Your task to perform on an android device: Open the Play Movies app and select the watchlist tab. Image 0: 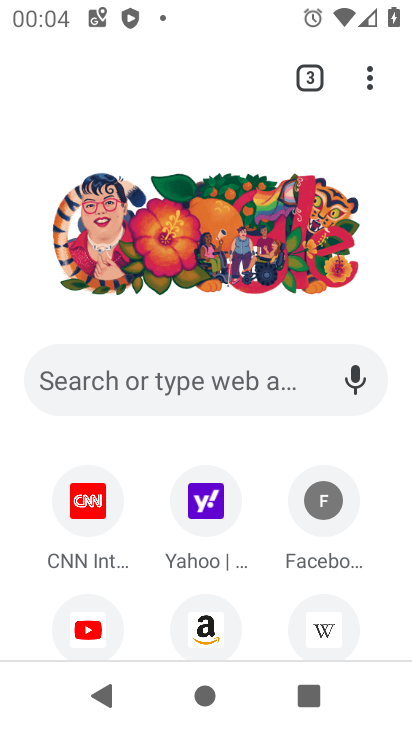
Step 0: press home button
Your task to perform on an android device: Open the Play Movies app and select the watchlist tab. Image 1: 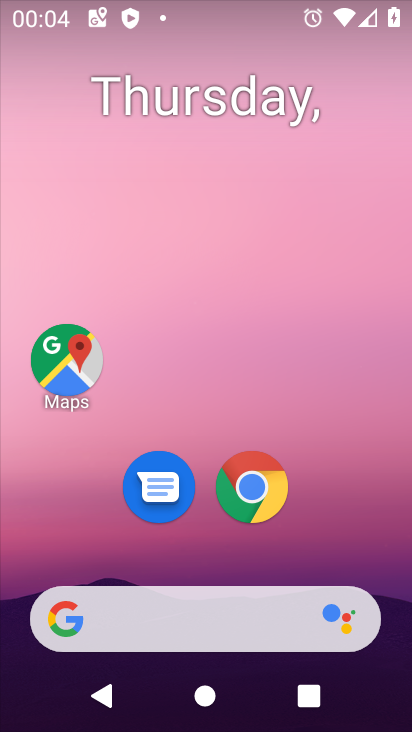
Step 1: drag from (338, 563) to (356, 17)
Your task to perform on an android device: Open the Play Movies app and select the watchlist tab. Image 2: 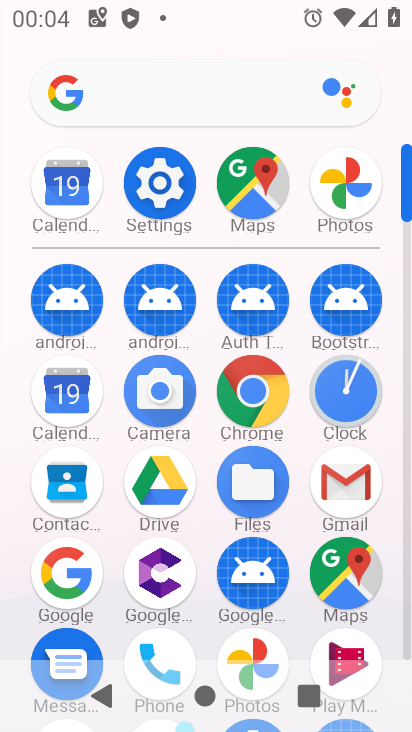
Step 2: click (405, 545)
Your task to perform on an android device: Open the Play Movies app and select the watchlist tab. Image 3: 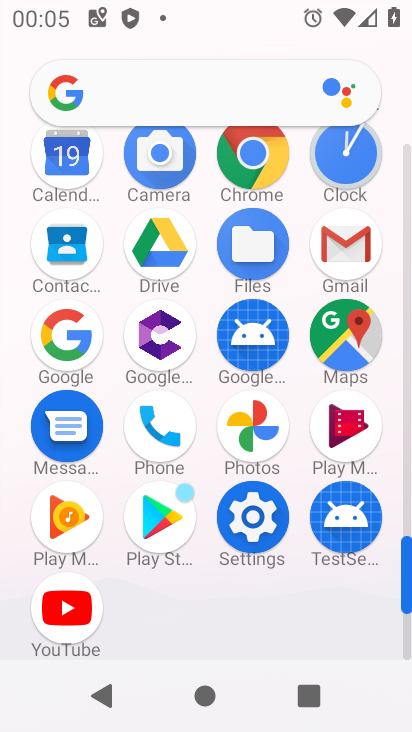
Step 3: click (339, 432)
Your task to perform on an android device: Open the Play Movies app and select the watchlist tab. Image 4: 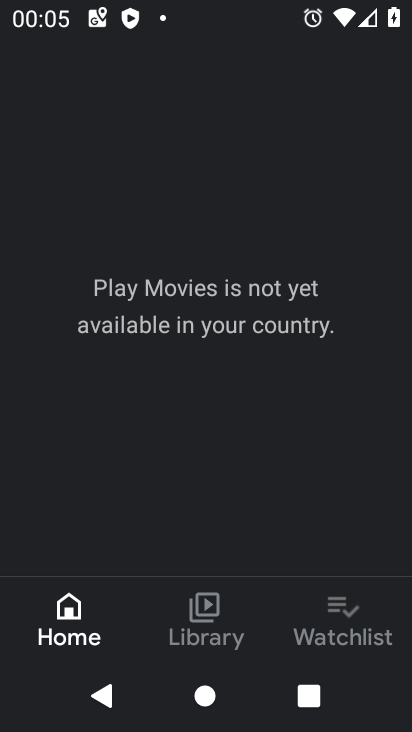
Step 4: click (349, 624)
Your task to perform on an android device: Open the Play Movies app and select the watchlist tab. Image 5: 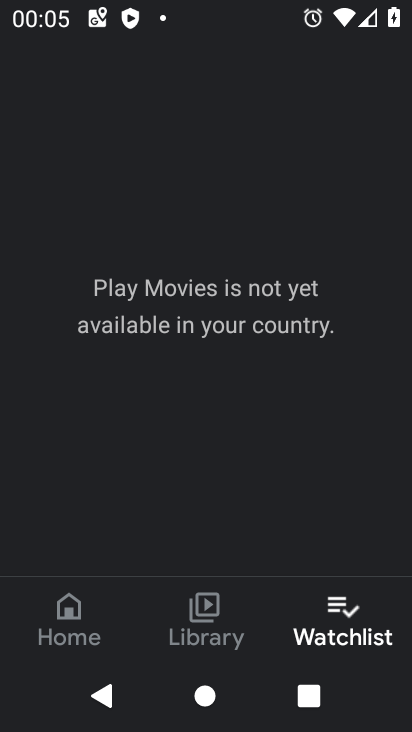
Step 5: task complete